Your task to perform on an android device: open app "Venmo" Image 0: 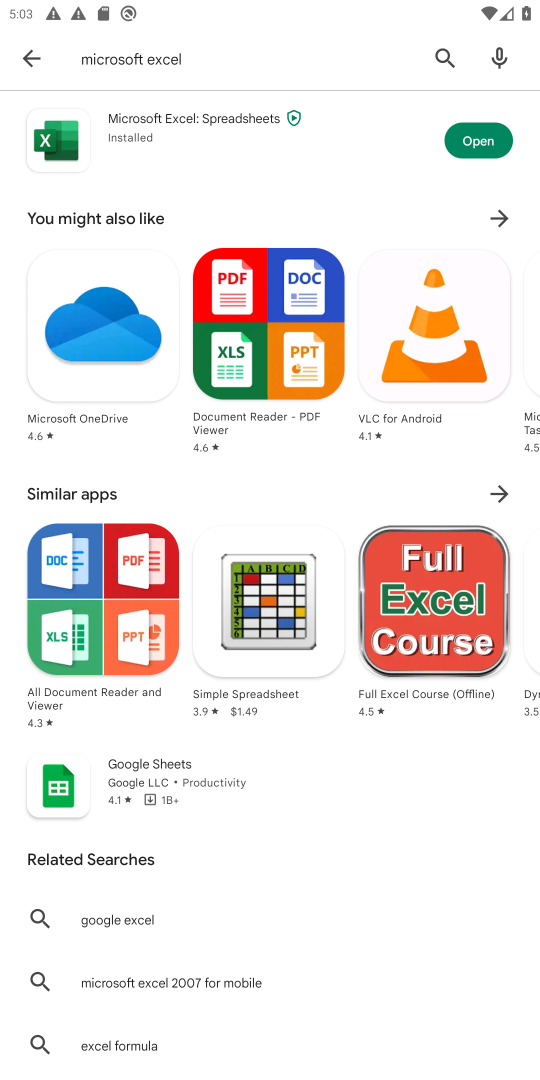
Step 0: click (30, 63)
Your task to perform on an android device: open app "Venmo" Image 1: 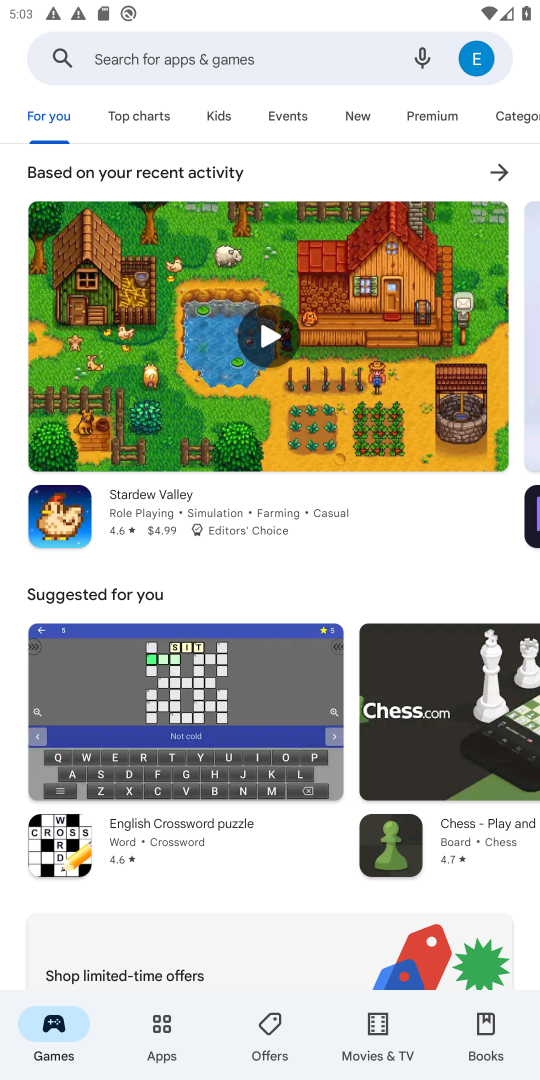
Step 1: click (148, 75)
Your task to perform on an android device: open app "Venmo" Image 2: 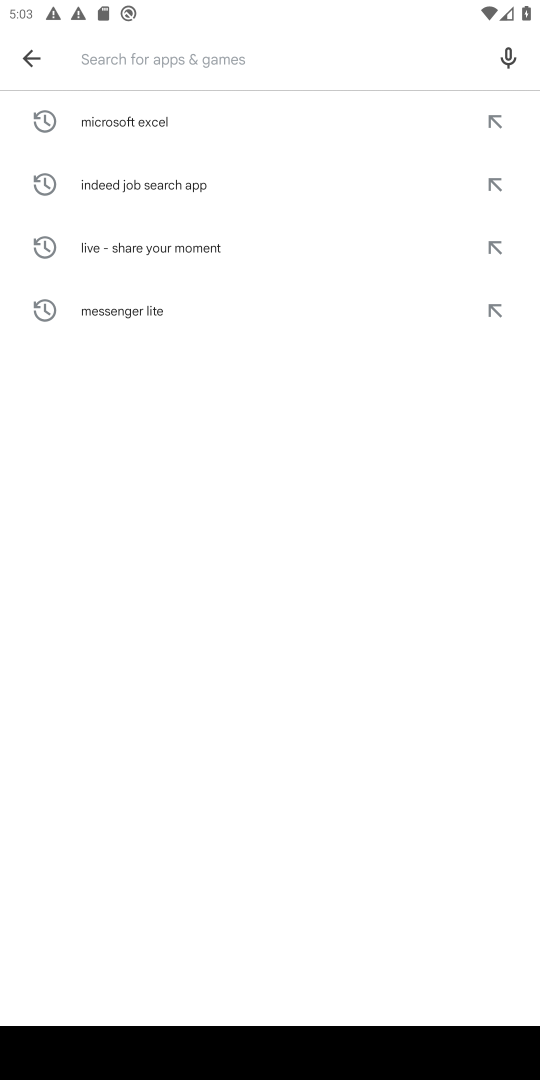
Step 2: type "Venmo"
Your task to perform on an android device: open app "Venmo" Image 3: 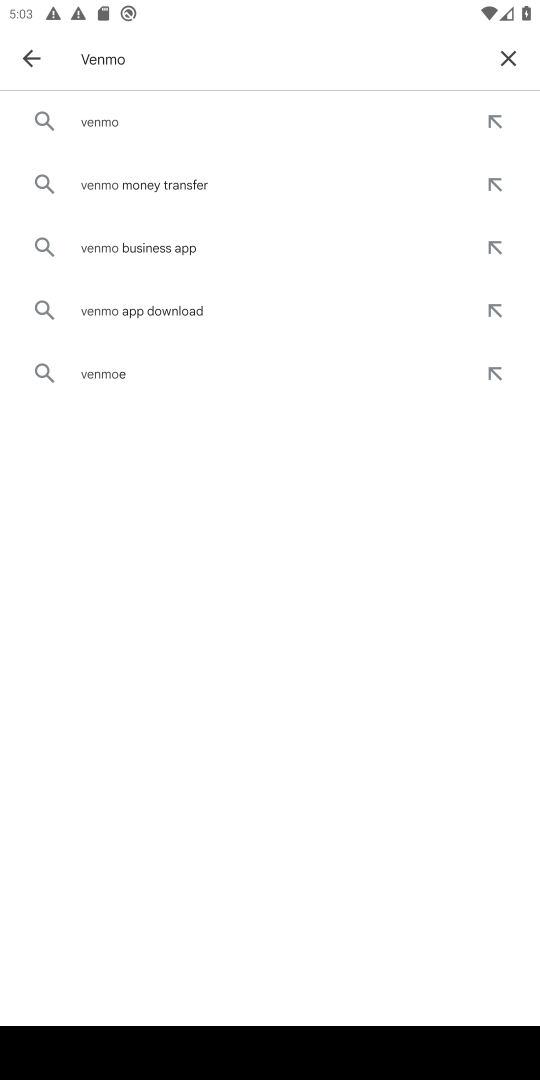
Step 3: click (118, 129)
Your task to perform on an android device: open app "Venmo" Image 4: 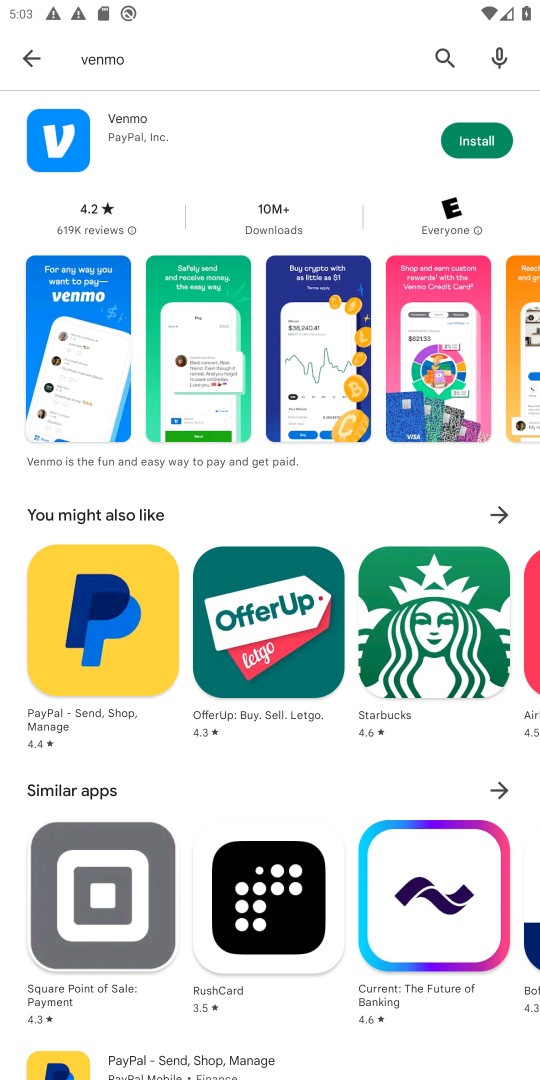
Step 4: click (462, 147)
Your task to perform on an android device: open app "Venmo" Image 5: 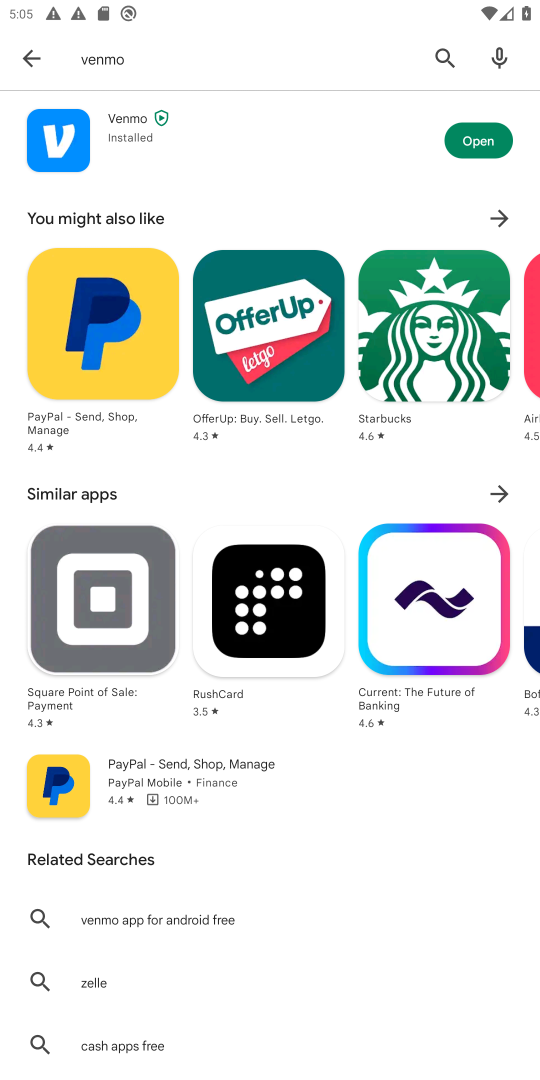
Step 5: click (472, 138)
Your task to perform on an android device: open app "Venmo" Image 6: 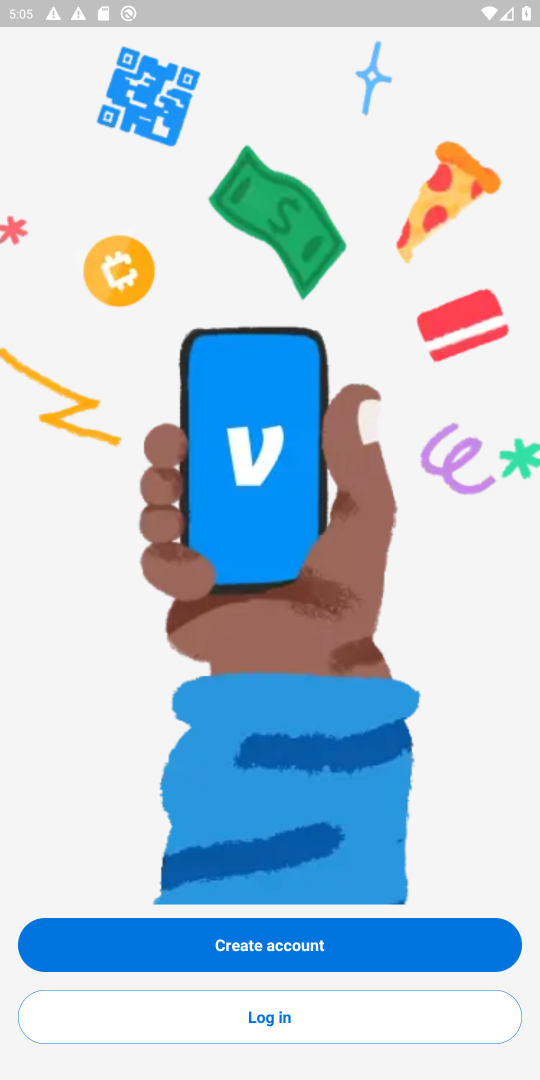
Step 6: task complete